Your task to perform on an android device: search for starred emails in the gmail app Image 0: 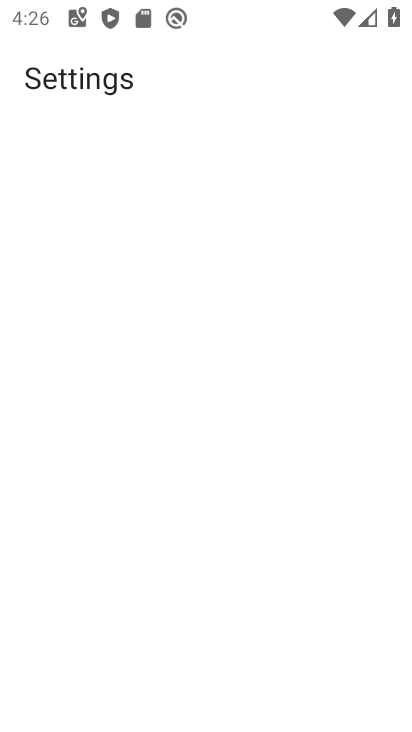
Step 0: drag from (328, 585) to (392, 168)
Your task to perform on an android device: search for starred emails in the gmail app Image 1: 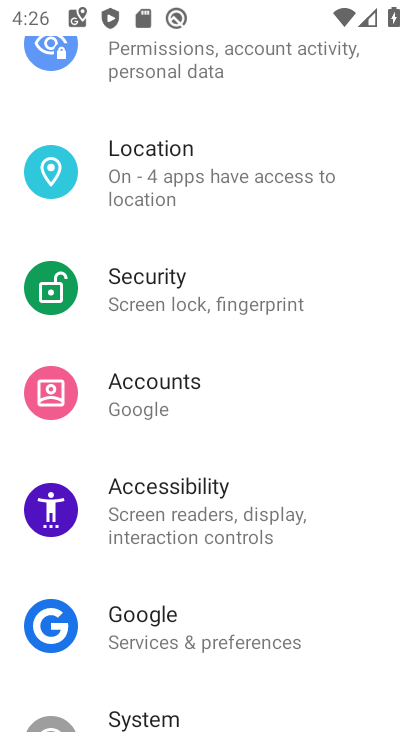
Step 1: press home button
Your task to perform on an android device: search for starred emails in the gmail app Image 2: 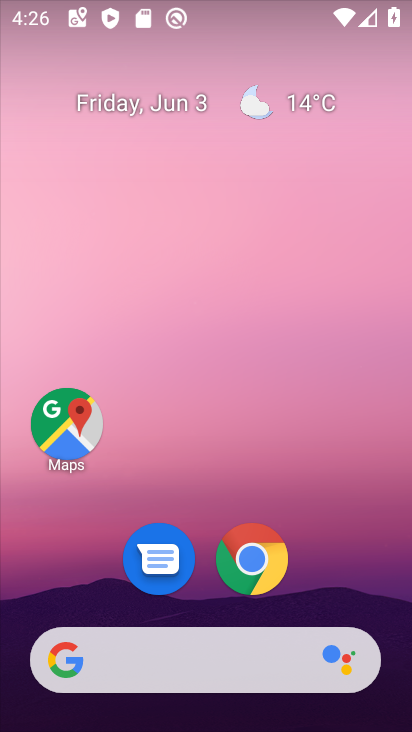
Step 2: drag from (355, 590) to (411, 597)
Your task to perform on an android device: search for starred emails in the gmail app Image 3: 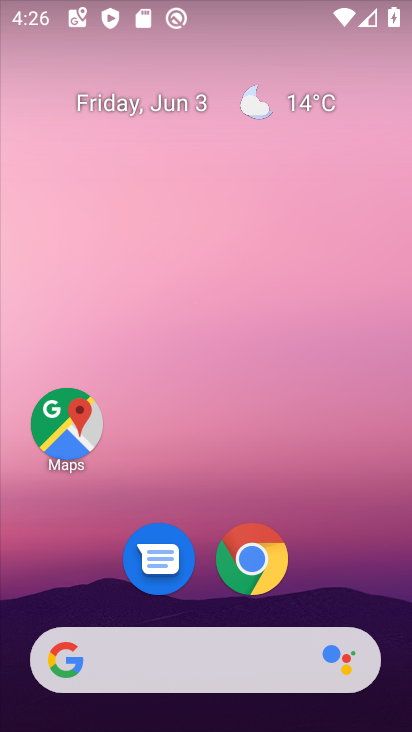
Step 3: click (336, 565)
Your task to perform on an android device: search for starred emails in the gmail app Image 4: 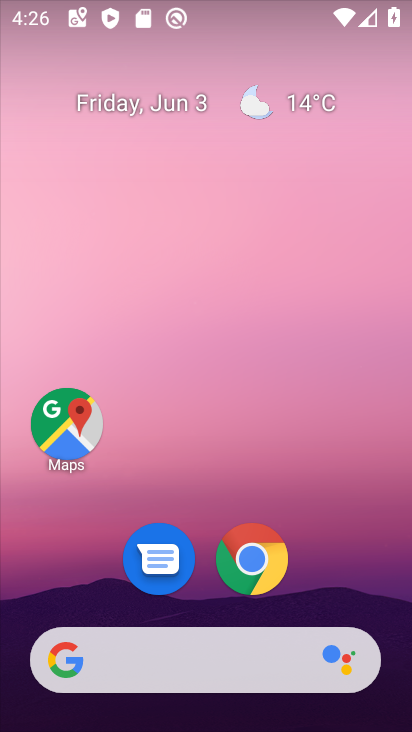
Step 4: drag from (353, 568) to (404, 123)
Your task to perform on an android device: search for starred emails in the gmail app Image 5: 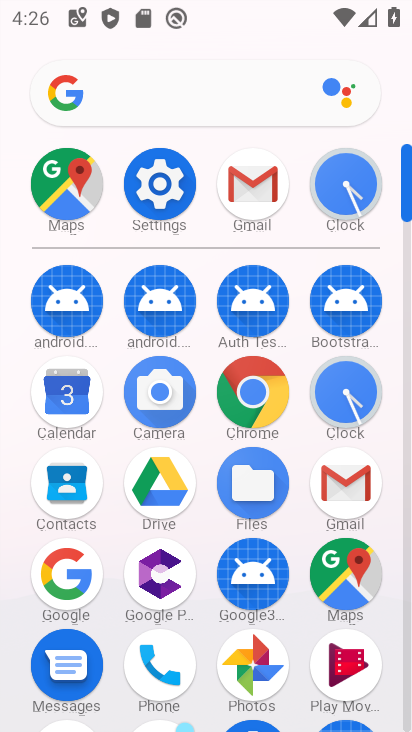
Step 5: click (335, 487)
Your task to perform on an android device: search for starred emails in the gmail app Image 6: 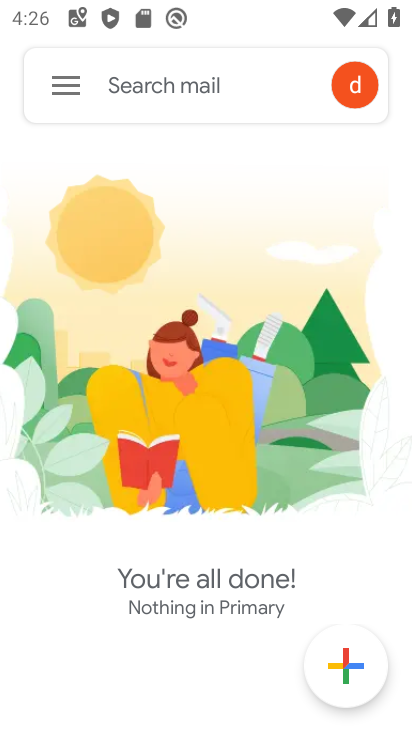
Step 6: click (53, 81)
Your task to perform on an android device: search for starred emails in the gmail app Image 7: 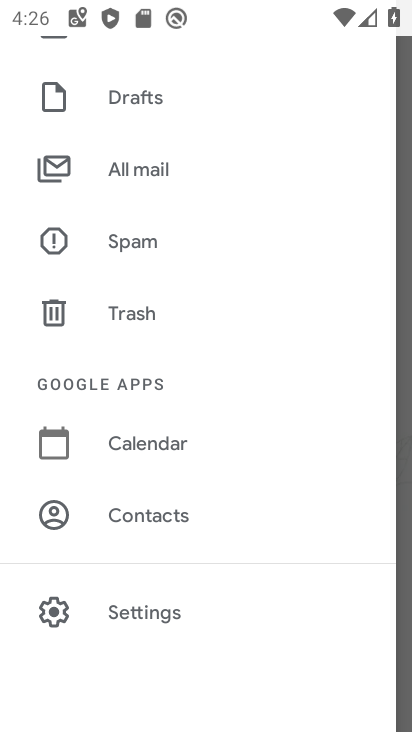
Step 7: drag from (183, 133) to (165, 521)
Your task to perform on an android device: search for starred emails in the gmail app Image 8: 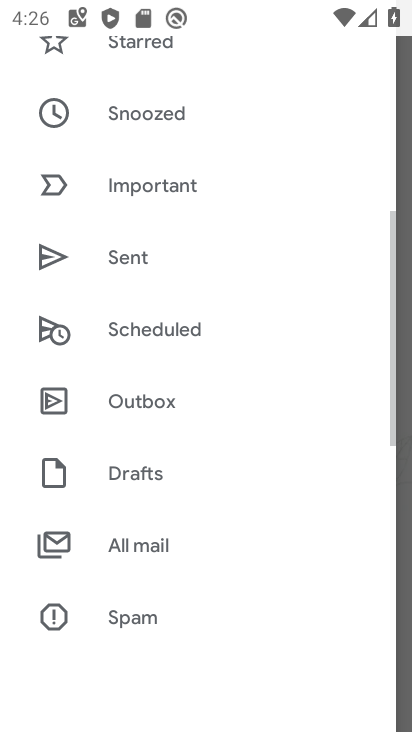
Step 8: drag from (196, 121) to (105, 568)
Your task to perform on an android device: search for starred emails in the gmail app Image 9: 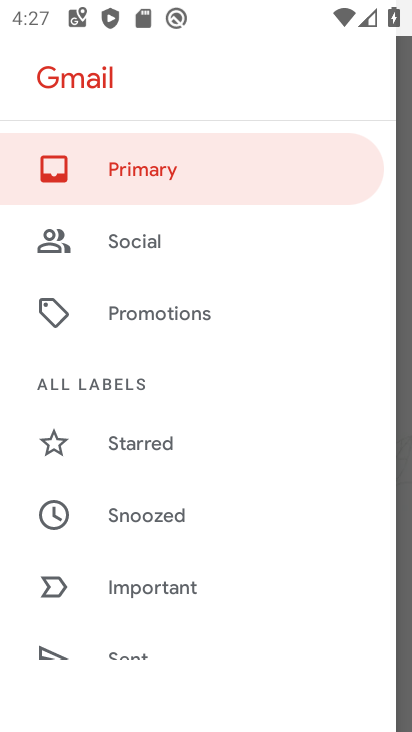
Step 9: click (148, 443)
Your task to perform on an android device: search for starred emails in the gmail app Image 10: 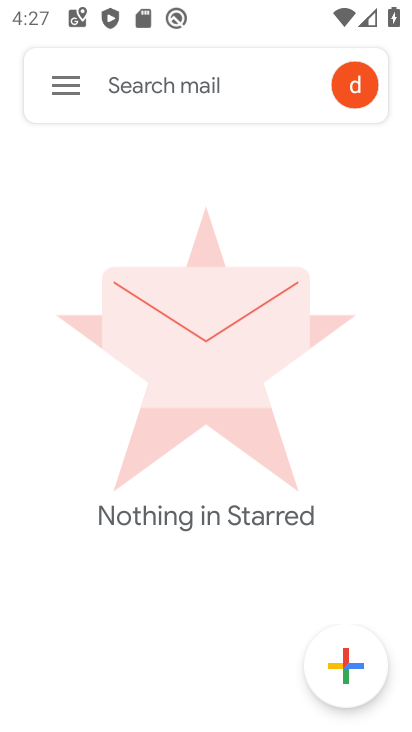
Step 10: task complete